Your task to perform on an android device: change the clock style Image 0: 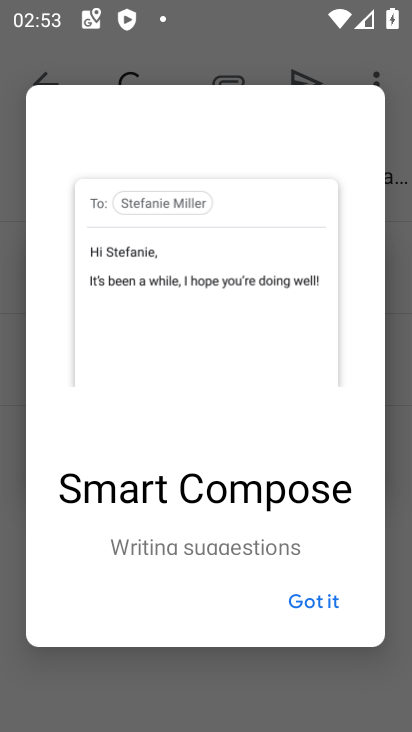
Step 0: press home button
Your task to perform on an android device: change the clock style Image 1: 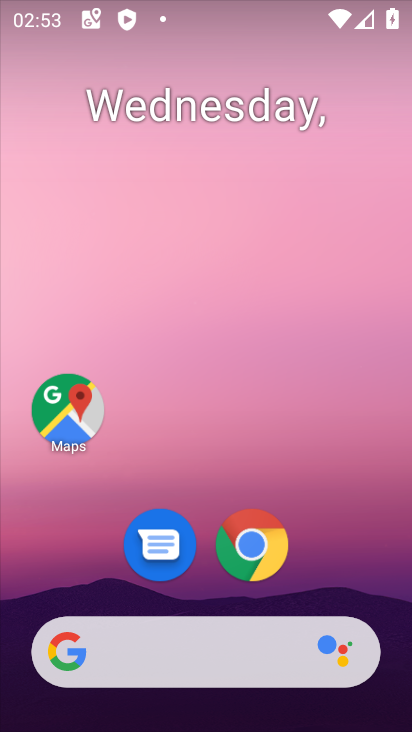
Step 1: drag from (184, 658) to (344, 21)
Your task to perform on an android device: change the clock style Image 2: 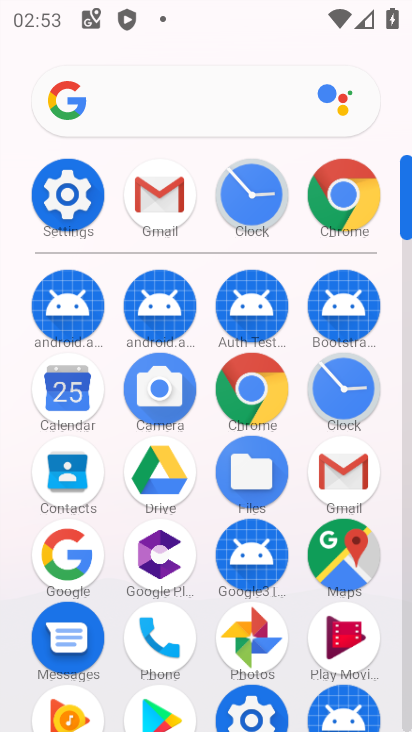
Step 2: click (345, 398)
Your task to perform on an android device: change the clock style Image 3: 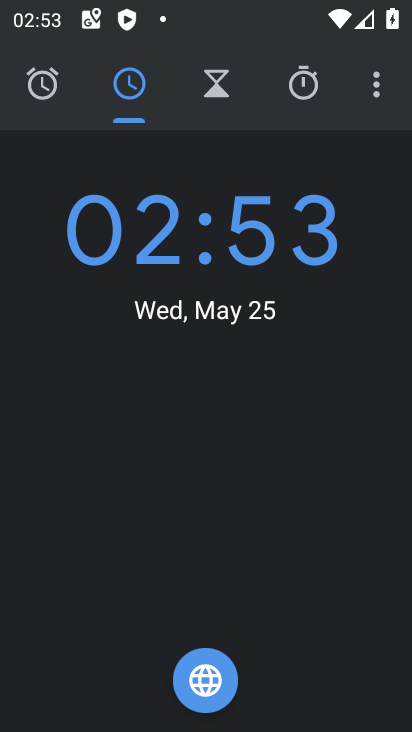
Step 3: click (379, 79)
Your task to perform on an android device: change the clock style Image 4: 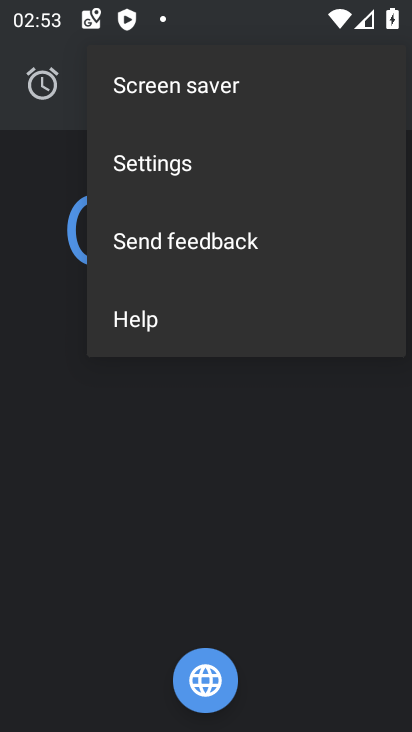
Step 4: click (200, 167)
Your task to perform on an android device: change the clock style Image 5: 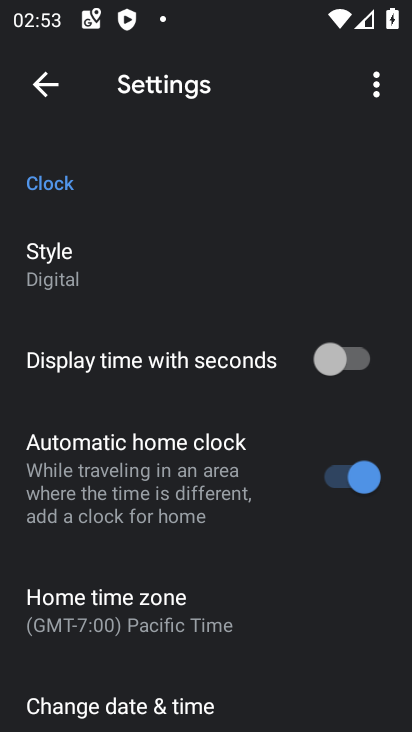
Step 5: click (73, 262)
Your task to perform on an android device: change the clock style Image 6: 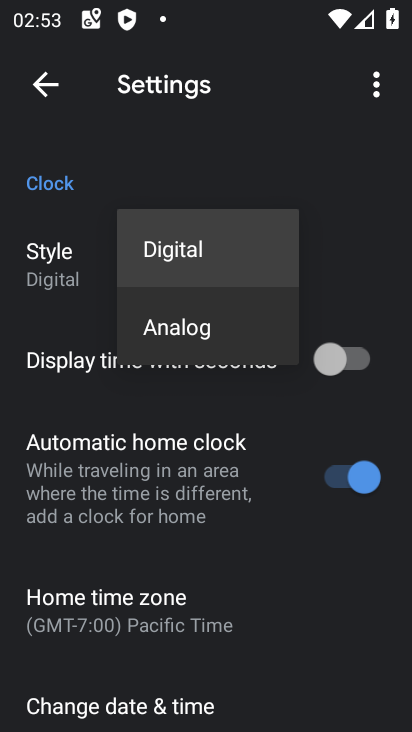
Step 6: click (217, 336)
Your task to perform on an android device: change the clock style Image 7: 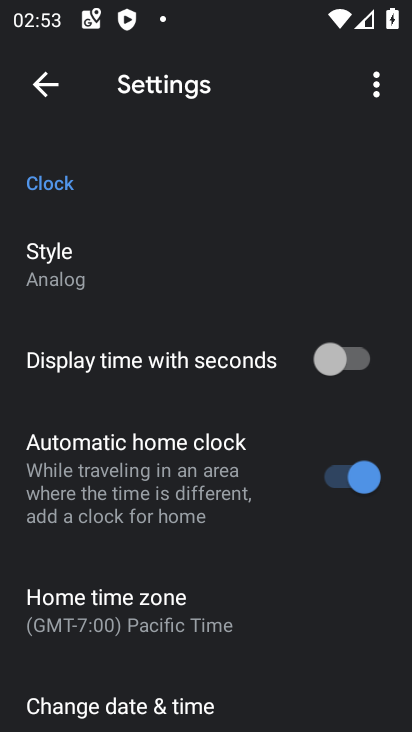
Step 7: task complete